Your task to perform on an android device: stop showing notifications on the lock screen Image 0: 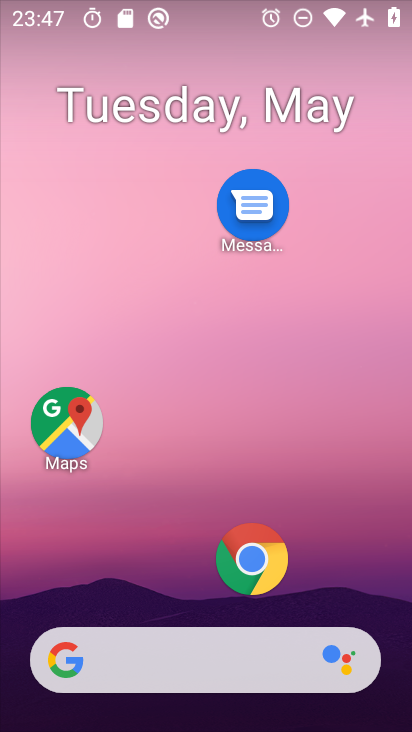
Step 0: drag from (188, 576) to (185, 168)
Your task to perform on an android device: stop showing notifications on the lock screen Image 1: 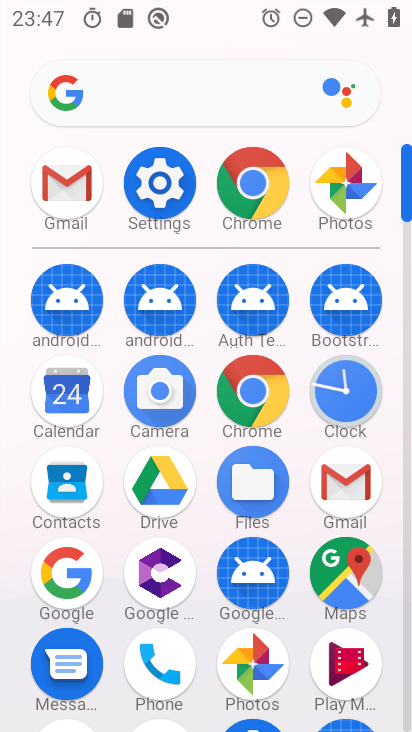
Step 1: click (170, 173)
Your task to perform on an android device: stop showing notifications on the lock screen Image 2: 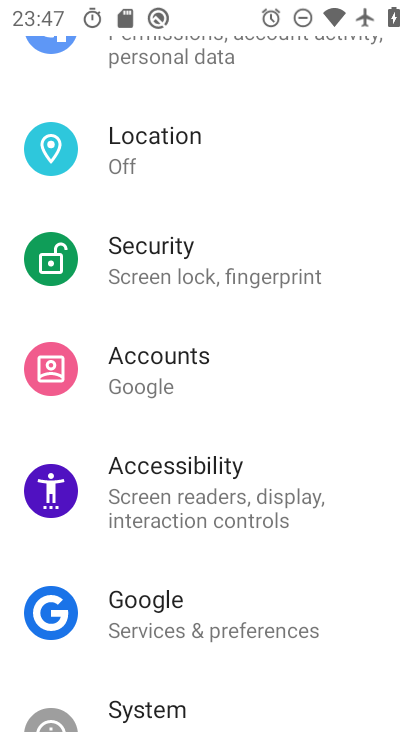
Step 2: drag from (238, 239) to (257, 537)
Your task to perform on an android device: stop showing notifications on the lock screen Image 3: 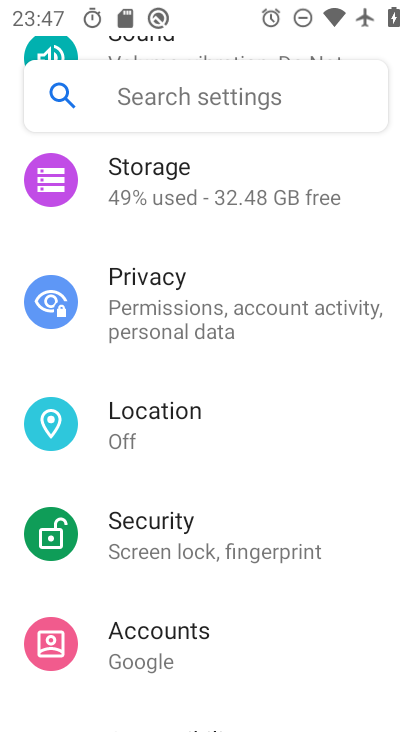
Step 3: drag from (252, 233) to (266, 540)
Your task to perform on an android device: stop showing notifications on the lock screen Image 4: 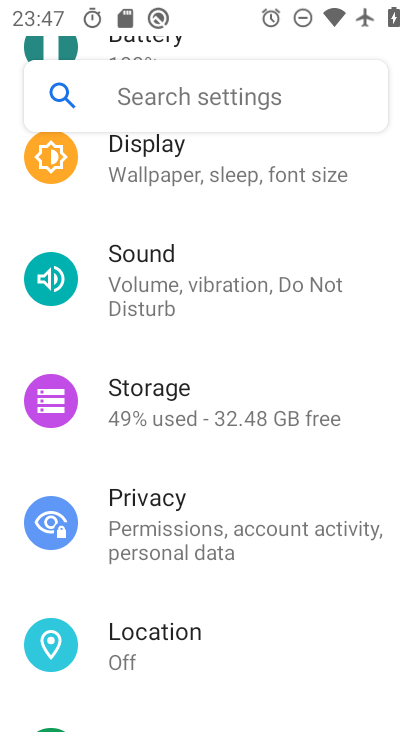
Step 4: drag from (222, 169) to (235, 520)
Your task to perform on an android device: stop showing notifications on the lock screen Image 5: 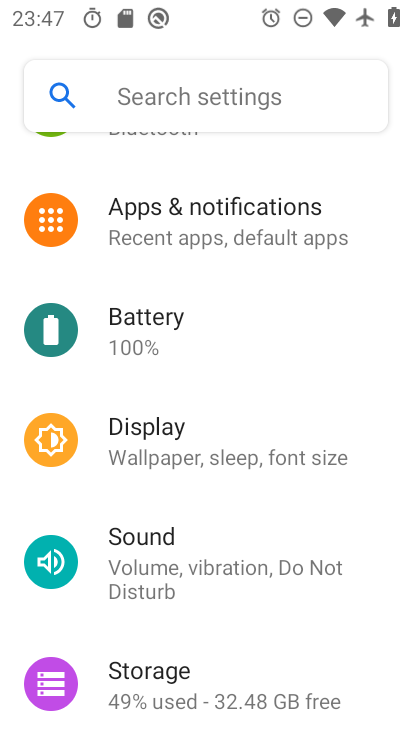
Step 5: click (215, 247)
Your task to perform on an android device: stop showing notifications on the lock screen Image 6: 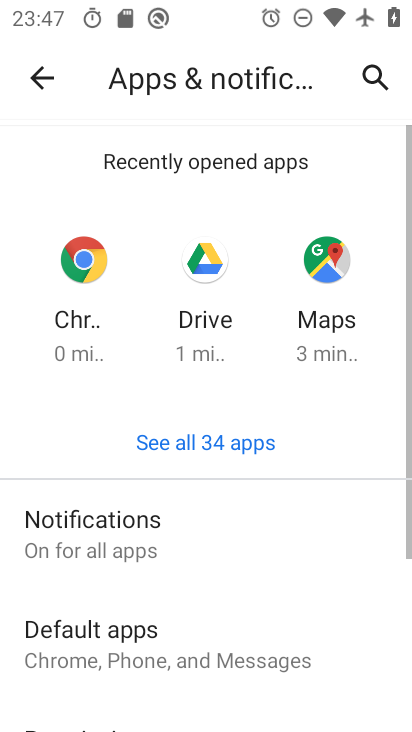
Step 6: drag from (196, 665) to (204, 429)
Your task to perform on an android device: stop showing notifications on the lock screen Image 7: 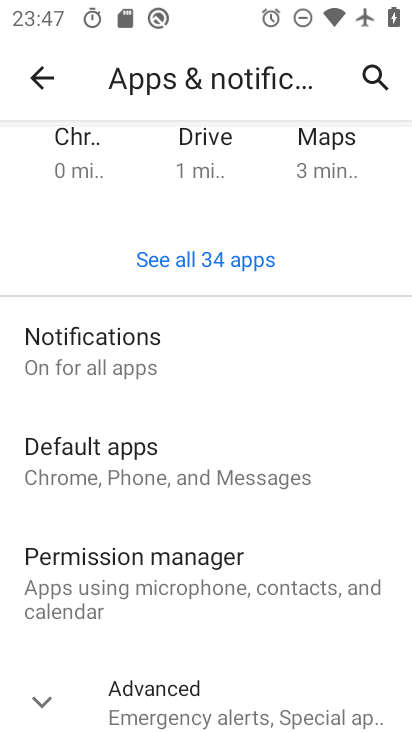
Step 7: click (194, 354)
Your task to perform on an android device: stop showing notifications on the lock screen Image 8: 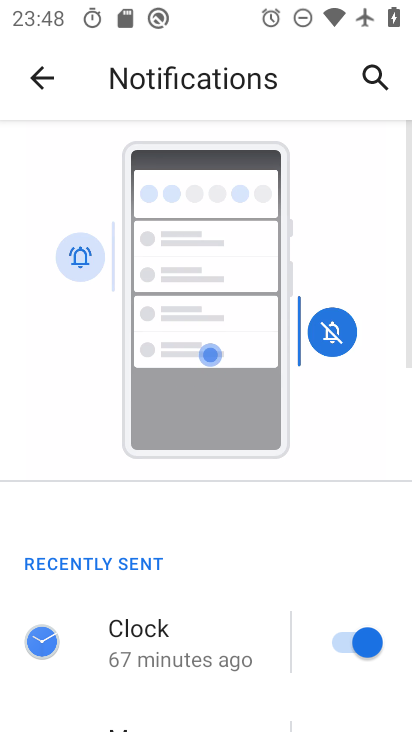
Step 8: drag from (252, 622) to (250, 266)
Your task to perform on an android device: stop showing notifications on the lock screen Image 9: 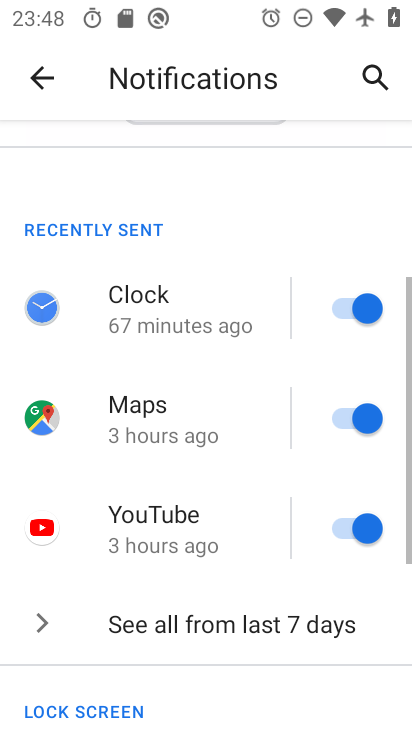
Step 9: drag from (202, 685) to (232, 332)
Your task to perform on an android device: stop showing notifications on the lock screen Image 10: 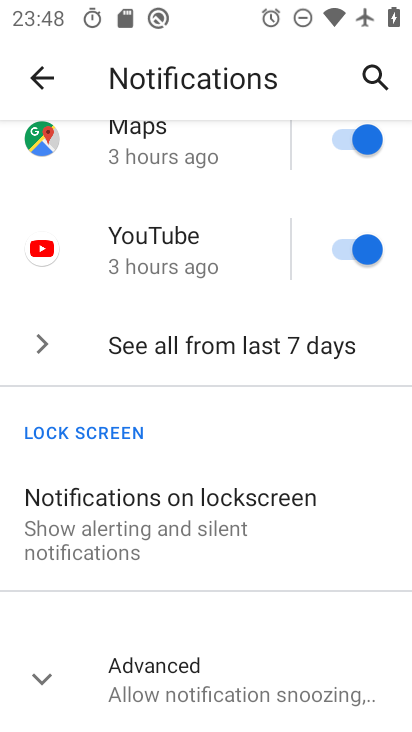
Step 10: click (214, 520)
Your task to perform on an android device: stop showing notifications on the lock screen Image 11: 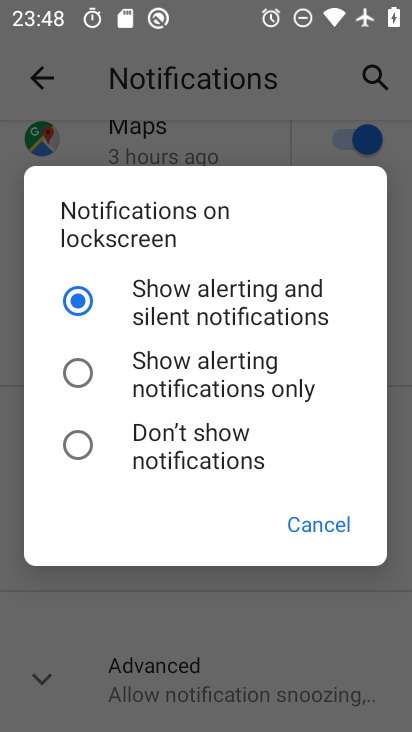
Step 11: click (229, 428)
Your task to perform on an android device: stop showing notifications on the lock screen Image 12: 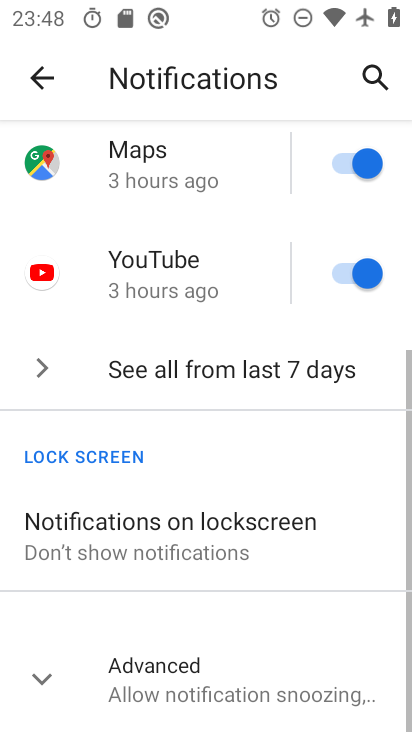
Step 12: task complete